Your task to perform on an android device: turn on priority inbox in the gmail app Image 0: 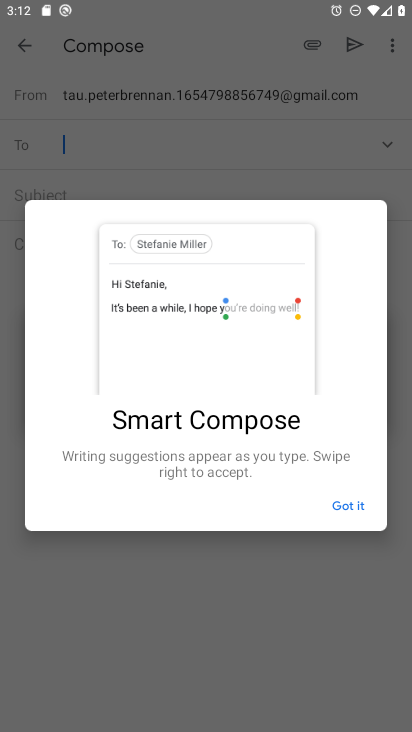
Step 0: press home button
Your task to perform on an android device: turn on priority inbox in the gmail app Image 1: 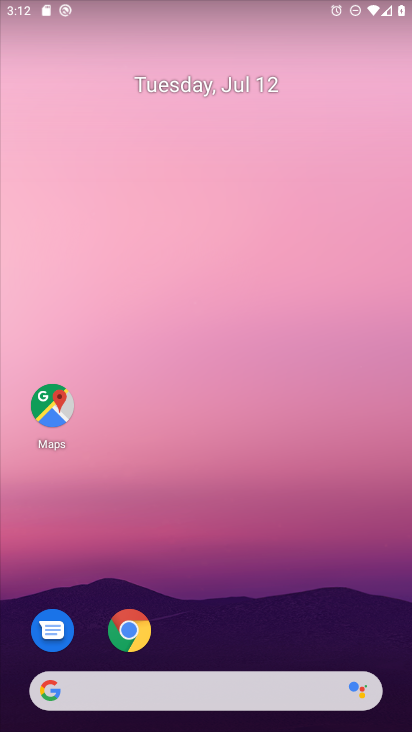
Step 1: drag from (196, 615) to (185, 213)
Your task to perform on an android device: turn on priority inbox in the gmail app Image 2: 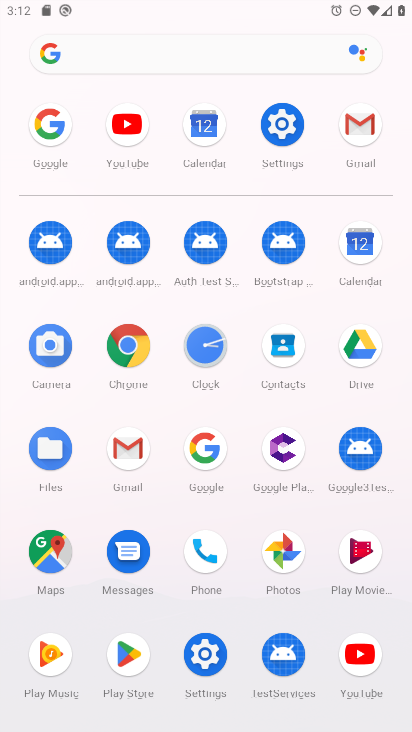
Step 2: click (147, 457)
Your task to perform on an android device: turn on priority inbox in the gmail app Image 3: 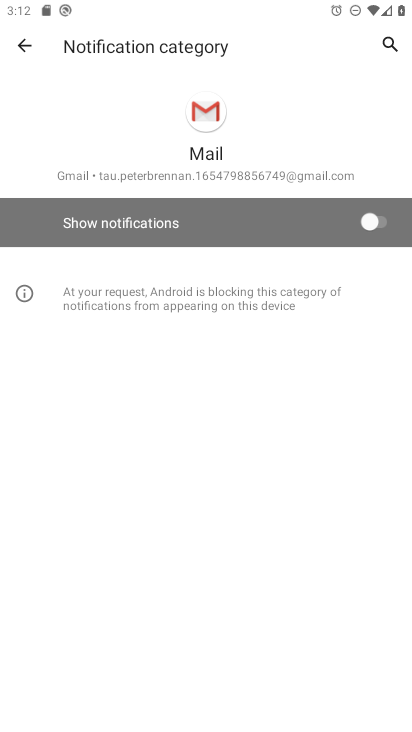
Step 3: click (32, 46)
Your task to perform on an android device: turn on priority inbox in the gmail app Image 4: 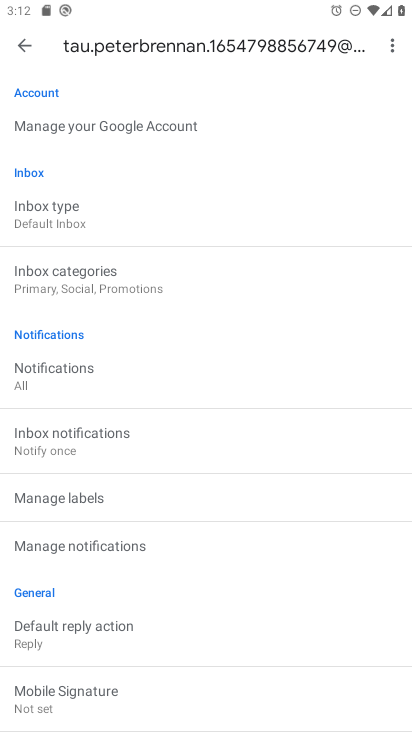
Step 4: click (101, 368)
Your task to perform on an android device: turn on priority inbox in the gmail app Image 5: 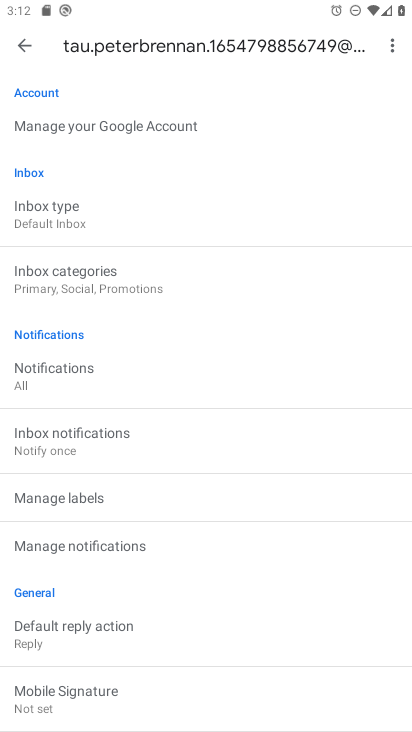
Step 5: click (76, 226)
Your task to perform on an android device: turn on priority inbox in the gmail app Image 6: 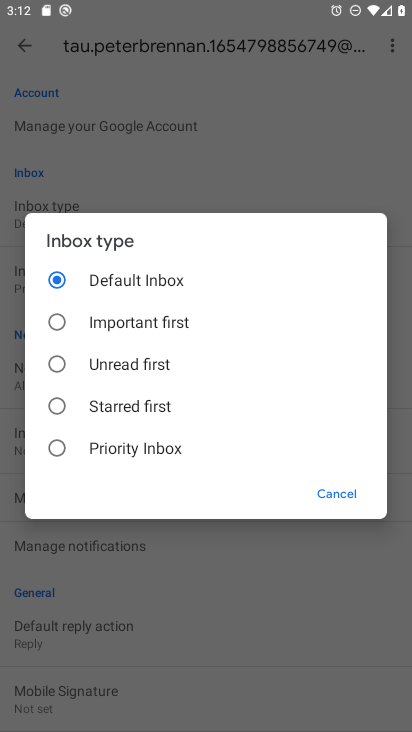
Step 6: click (130, 457)
Your task to perform on an android device: turn on priority inbox in the gmail app Image 7: 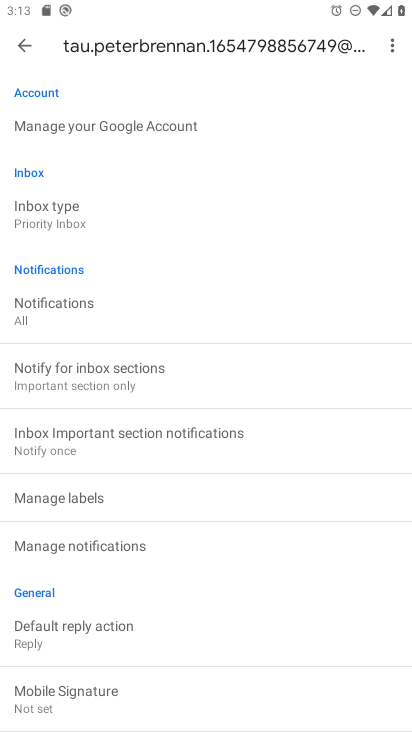
Step 7: task complete